Your task to perform on an android device: set the stopwatch Image 0: 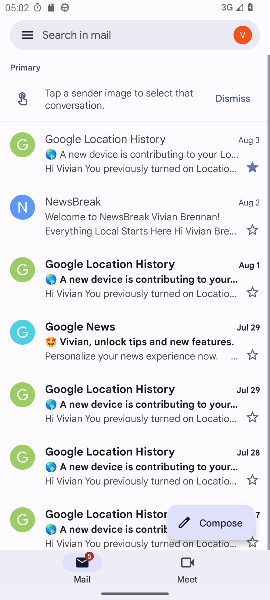
Step 0: press home button
Your task to perform on an android device: set the stopwatch Image 1: 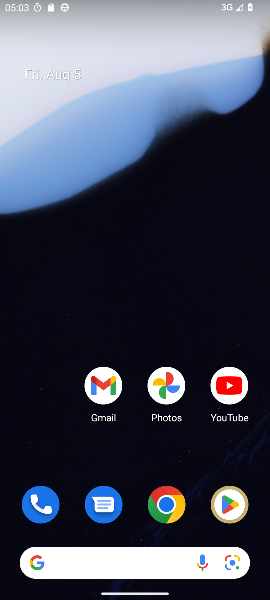
Step 1: drag from (14, 423) to (214, 26)
Your task to perform on an android device: set the stopwatch Image 2: 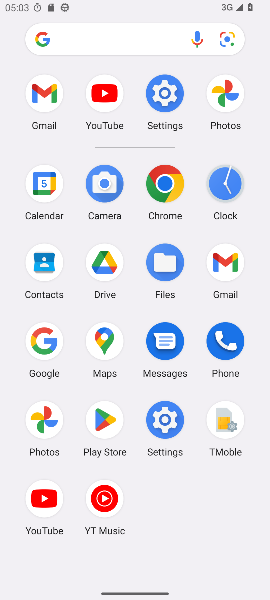
Step 2: click (231, 200)
Your task to perform on an android device: set the stopwatch Image 3: 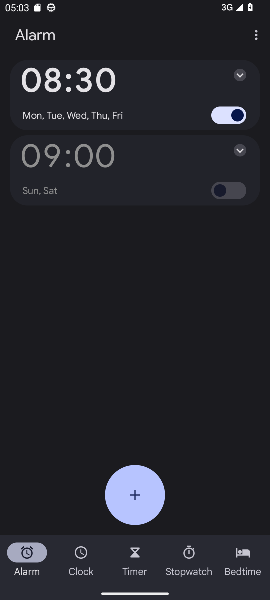
Step 3: click (202, 560)
Your task to perform on an android device: set the stopwatch Image 4: 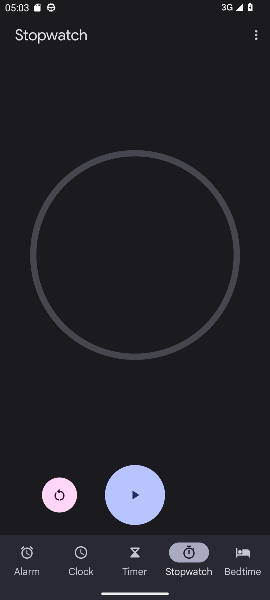
Step 4: click (139, 251)
Your task to perform on an android device: set the stopwatch Image 5: 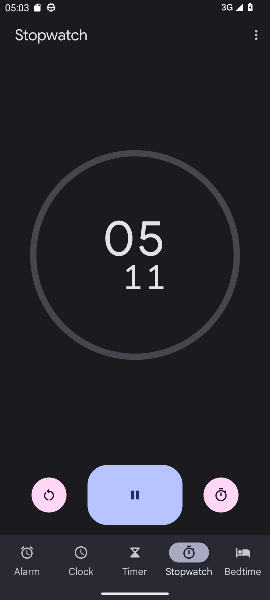
Step 5: click (139, 251)
Your task to perform on an android device: set the stopwatch Image 6: 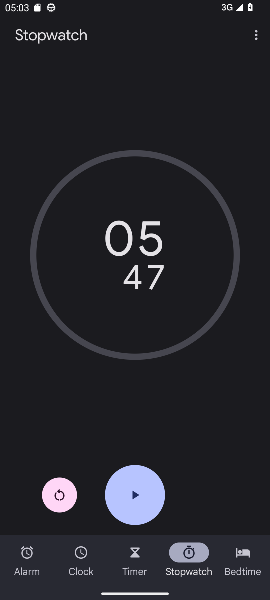
Step 6: task complete